Your task to perform on an android device: turn on priority inbox in the gmail app Image 0: 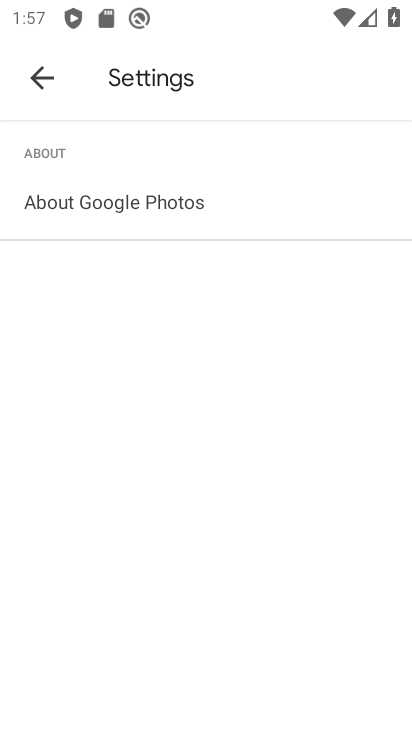
Step 0: press back button
Your task to perform on an android device: turn on priority inbox in the gmail app Image 1: 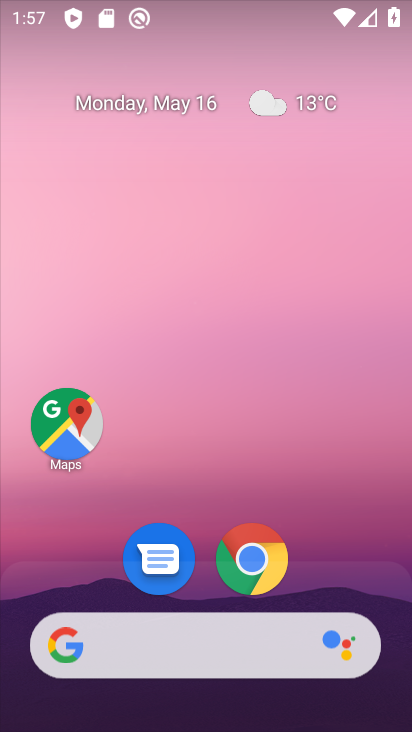
Step 1: drag from (153, 525) to (279, 37)
Your task to perform on an android device: turn on priority inbox in the gmail app Image 2: 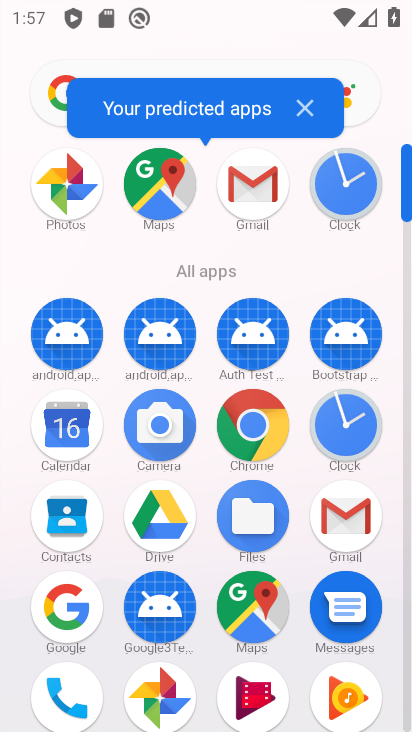
Step 2: click (226, 185)
Your task to perform on an android device: turn on priority inbox in the gmail app Image 3: 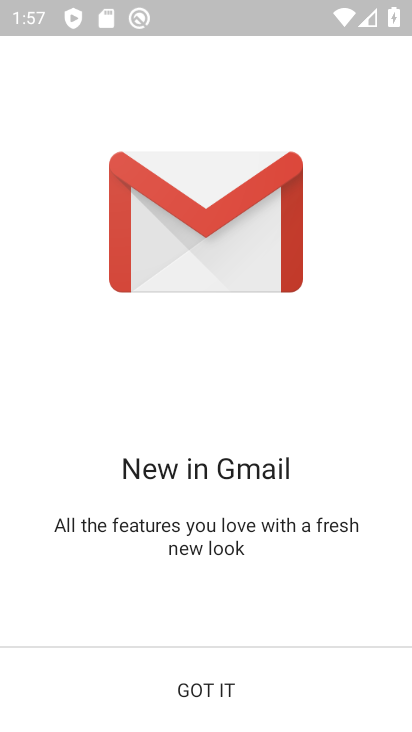
Step 3: click (211, 705)
Your task to perform on an android device: turn on priority inbox in the gmail app Image 4: 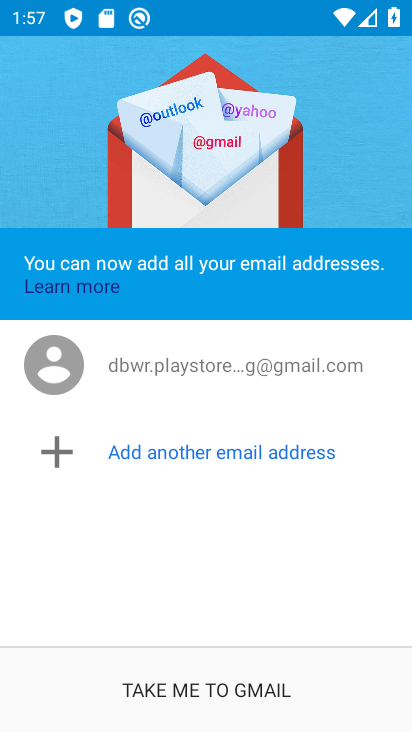
Step 4: click (191, 698)
Your task to perform on an android device: turn on priority inbox in the gmail app Image 5: 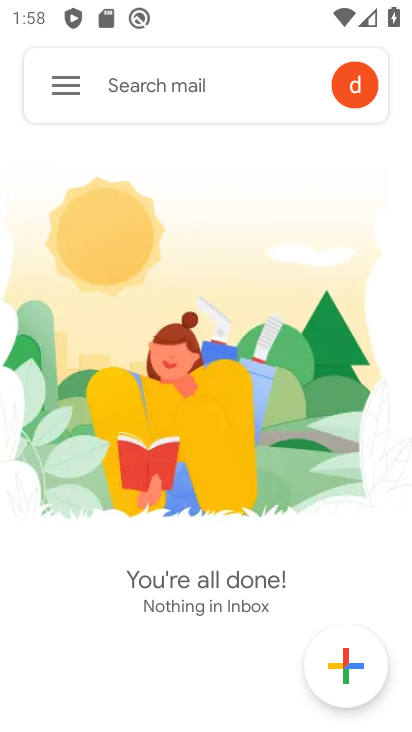
Step 5: click (63, 82)
Your task to perform on an android device: turn on priority inbox in the gmail app Image 6: 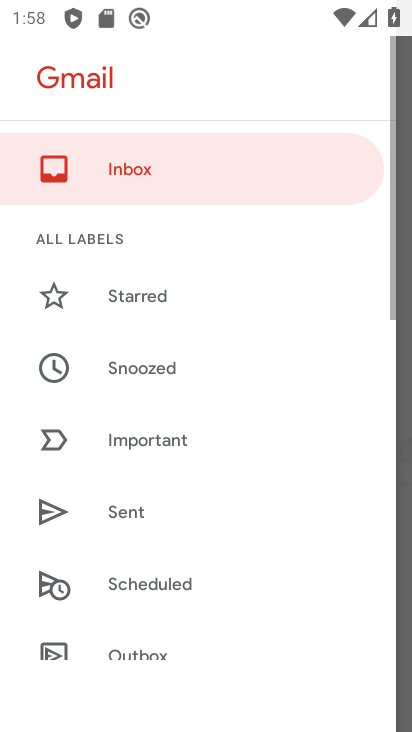
Step 6: drag from (155, 576) to (298, 65)
Your task to perform on an android device: turn on priority inbox in the gmail app Image 7: 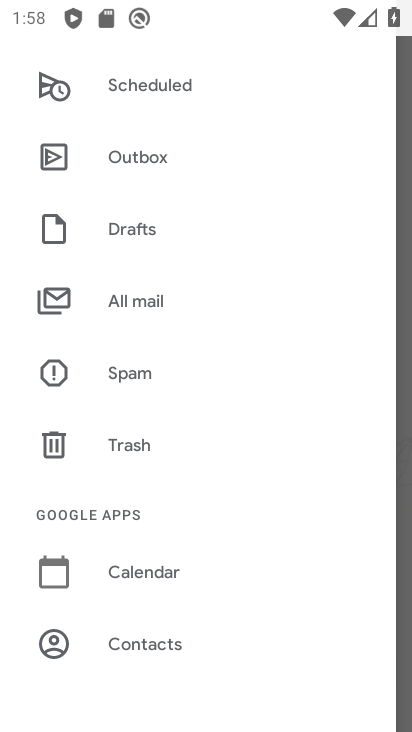
Step 7: drag from (128, 603) to (274, 105)
Your task to perform on an android device: turn on priority inbox in the gmail app Image 8: 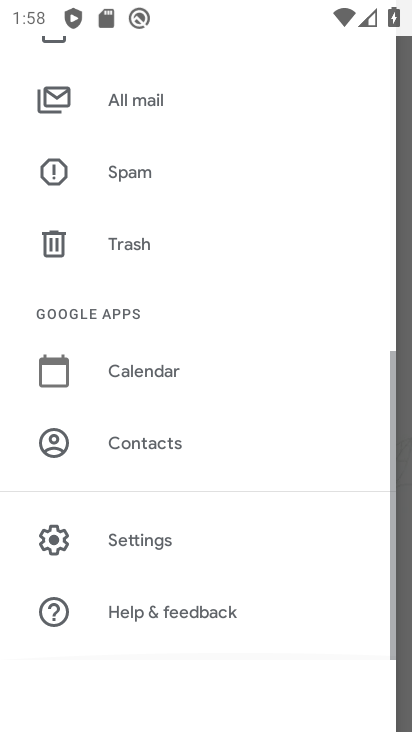
Step 8: click (117, 543)
Your task to perform on an android device: turn on priority inbox in the gmail app Image 9: 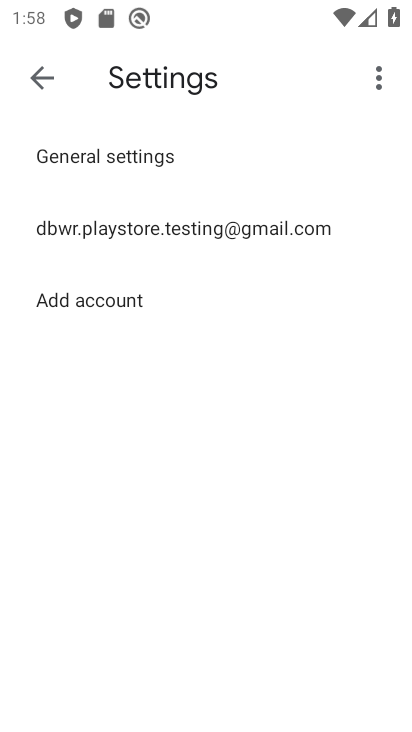
Step 9: click (87, 219)
Your task to perform on an android device: turn on priority inbox in the gmail app Image 10: 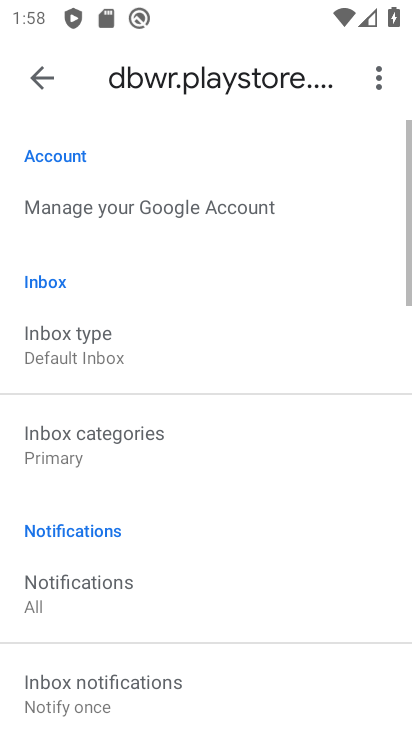
Step 10: click (34, 342)
Your task to perform on an android device: turn on priority inbox in the gmail app Image 11: 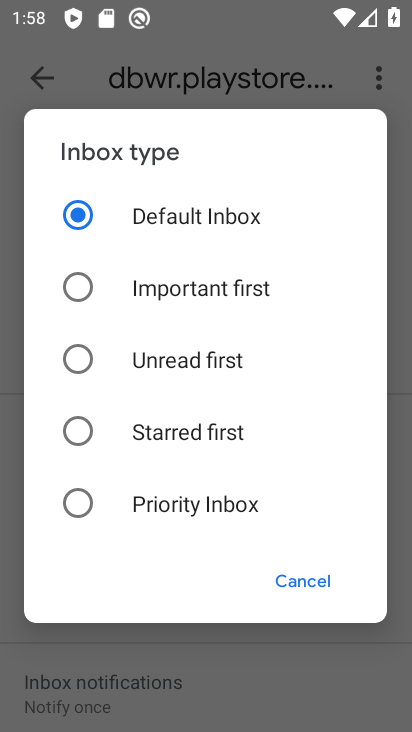
Step 11: click (76, 500)
Your task to perform on an android device: turn on priority inbox in the gmail app Image 12: 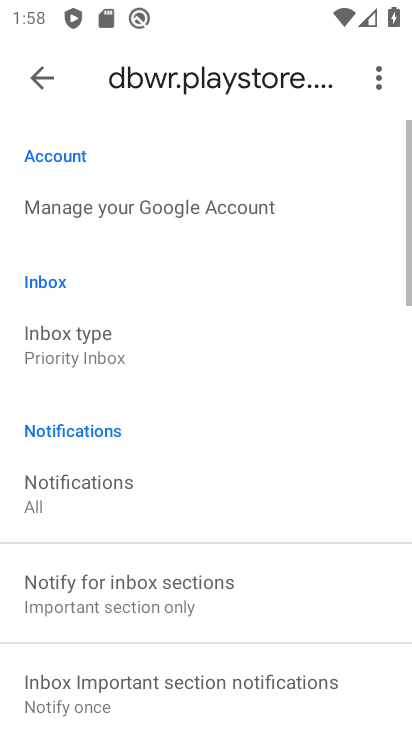
Step 12: task complete